Your task to perform on an android device: allow cookies in the chrome app Image 0: 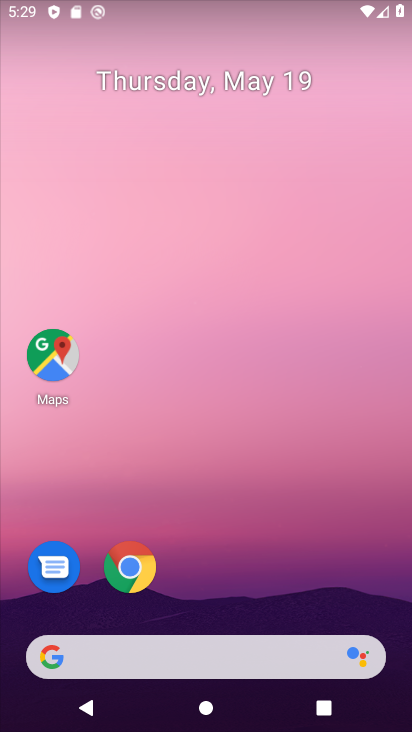
Step 0: drag from (378, 371) to (409, 597)
Your task to perform on an android device: allow cookies in the chrome app Image 1: 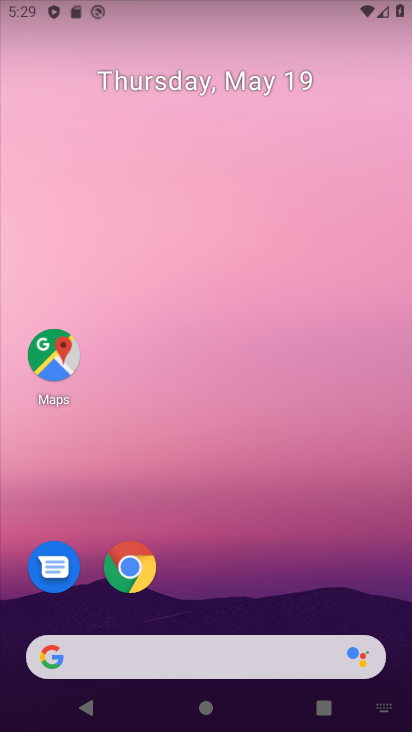
Step 1: drag from (269, 591) to (189, 143)
Your task to perform on an android device: allow cookies in the chrome app Image 2: 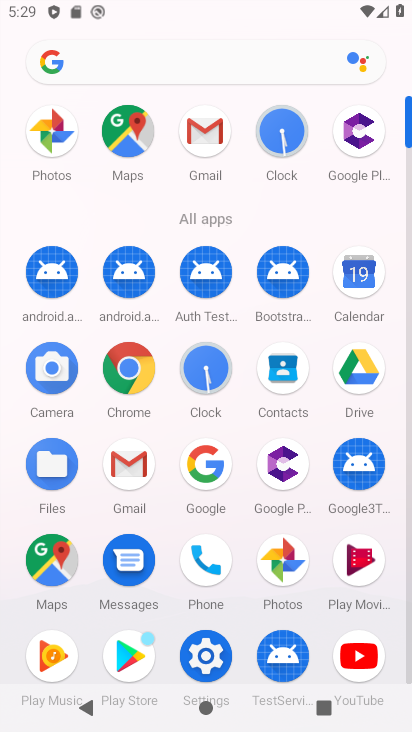
Step 2: click (123, 376)
Your task to perform on an android device: allow cookies in the chrome app Image 3: 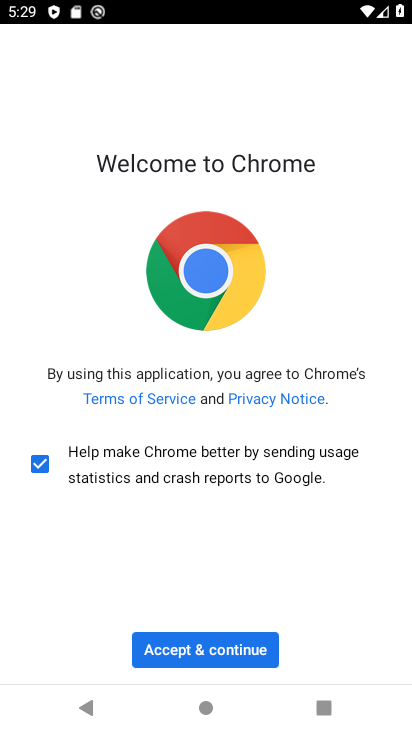
Step 3: click (184, 640)
Your task to perform on an android device: allow cookies in the chrome app Image 4: 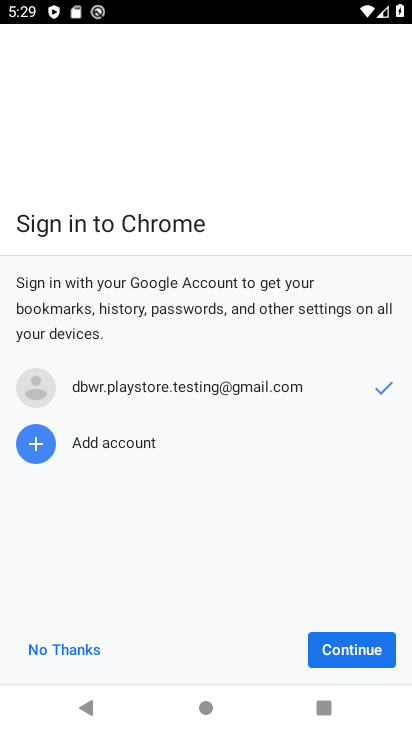
Step 4: click (356, 662)
Your task to perform on an android device: allow cookies in the chrome app Image 5: 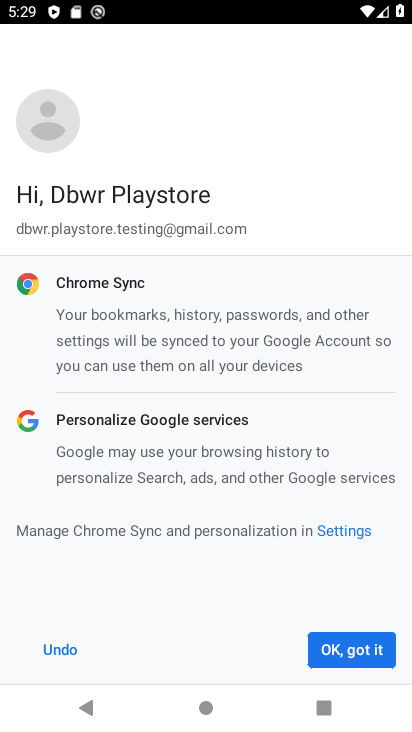
Step 5: click (351, 650)
Your task to perform on an android device: allow cookies in the chrome app Image 6: 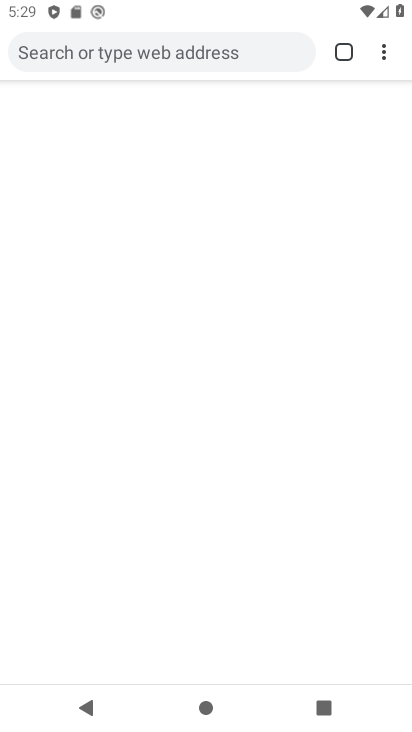
Step 6: click (351, 650)
Your task to perform on an android device: allow cookies in the chrome app Image 7: 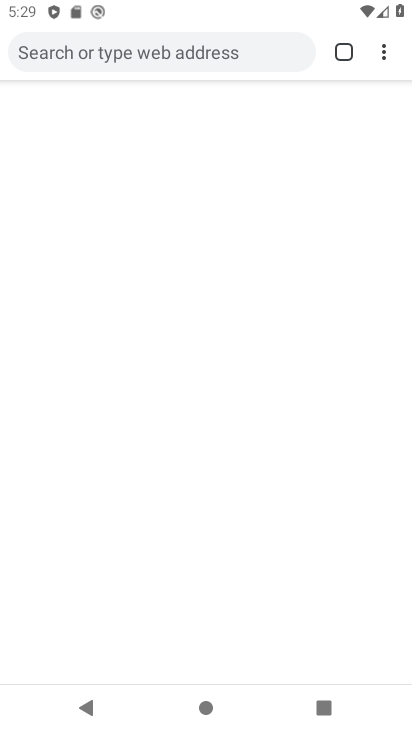
Step 7: click (351, 650)
Your task to perform on an android device: allow cookies in the chrome app Image 8: 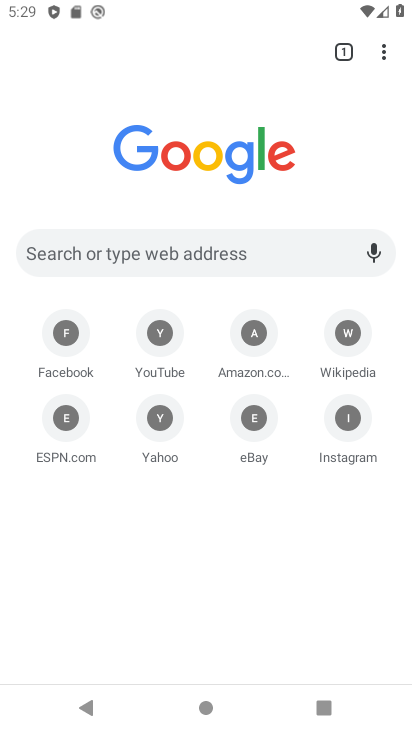
Step 8: click (351, 650)
Your task to perform on an android device: allow cookies in the chrome app Image 9: 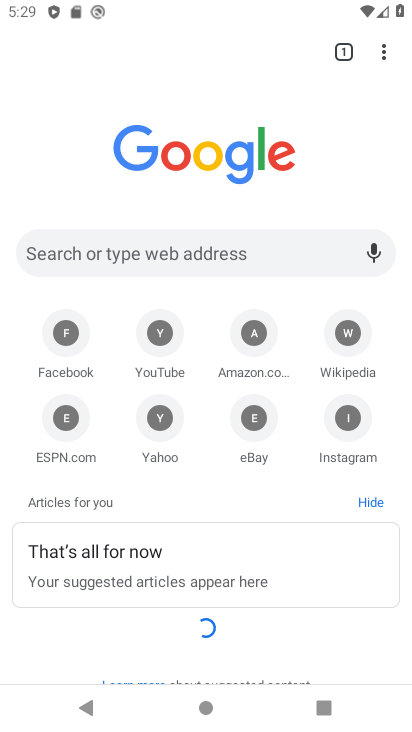
Step 9: click (351, 650)
Your task to perform on an android device: allow cookies in the chrome app Image 10: 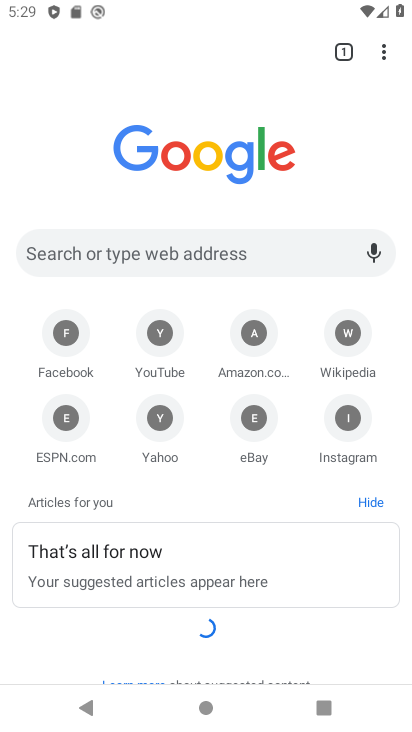
Step 10: click (351, 650)
Your task to perform on an android device: allow cookies in the chrome app Image 11: 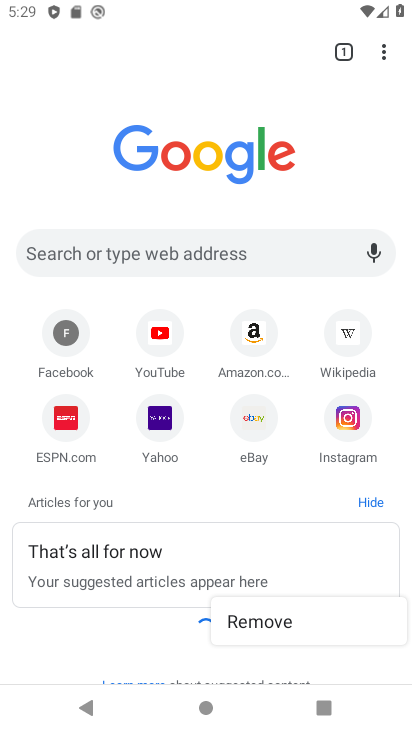
Step 11: click (351, 650)
Your task to perform on an android device: allow cookies in the chrome app Image 12: 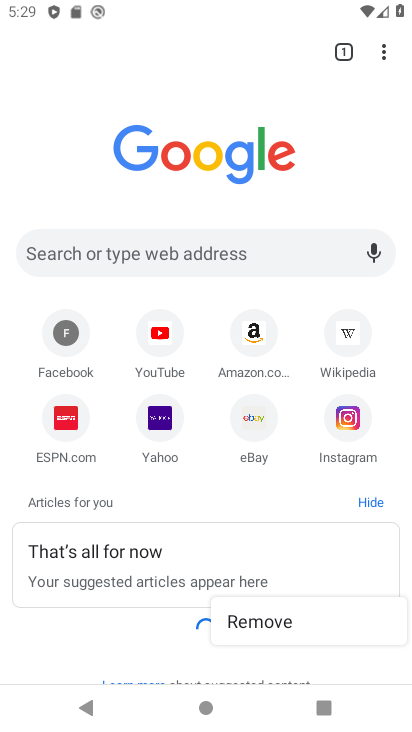
Step 12: click (336, 630)
Your task to perform on an android device: allow cookies in the chrome app Image 13: 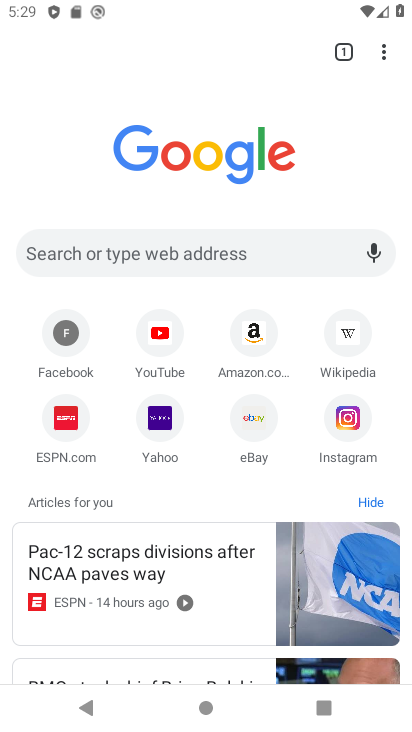
Step 13: drag from (382, 50) to (192, 431)
Your task to perform on an android device: allow cookies in the chrome app Image 14: 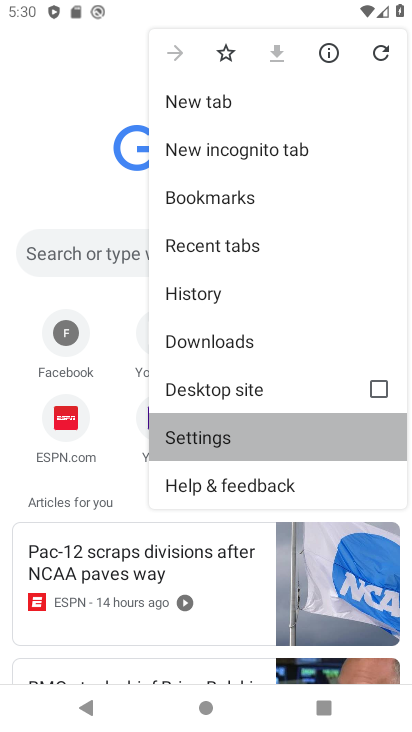
Step 14: click (196, 432)
Your task to perform on an android device: allow cookies in the chrome app Image 15: 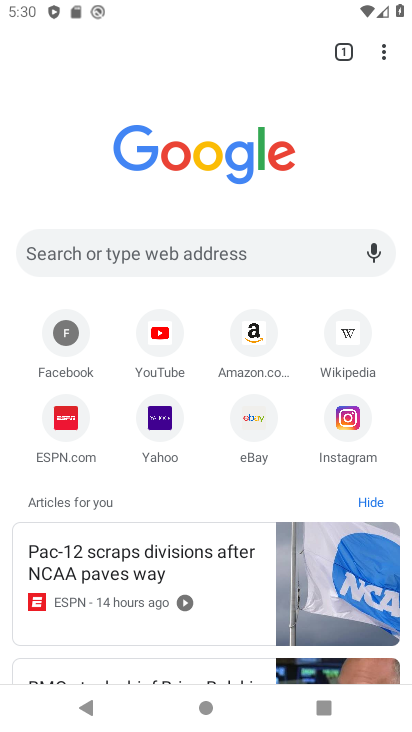
Step 15: click (197, 431)
Your task to perform on an android device: allow cookies in the chrome app Image 16: 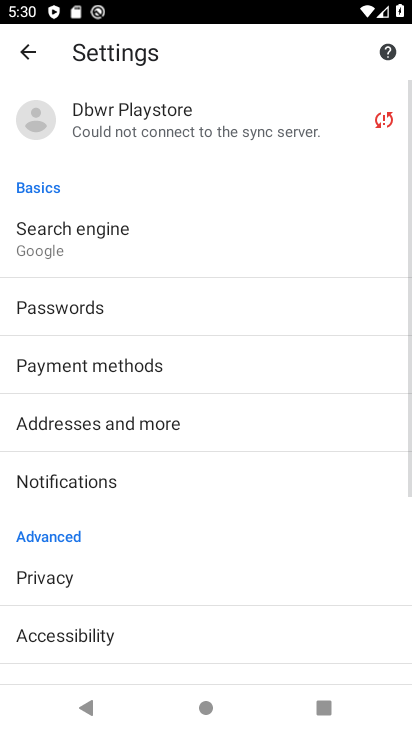
Step 16: drag from (125, 531) to (87, 262)
Your task to perform on an android device: allow cookies in the chrome app Image 17: 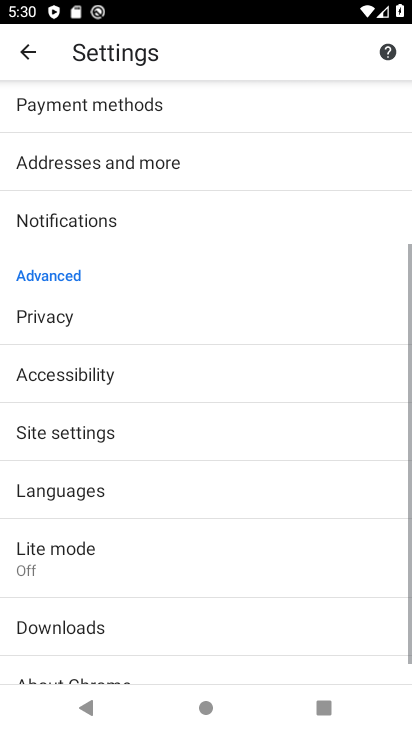
Step 17: drag from (128, 520) to (95, 221)
Your task to perform on an android device: allow cookies in the chrome app Image 18: 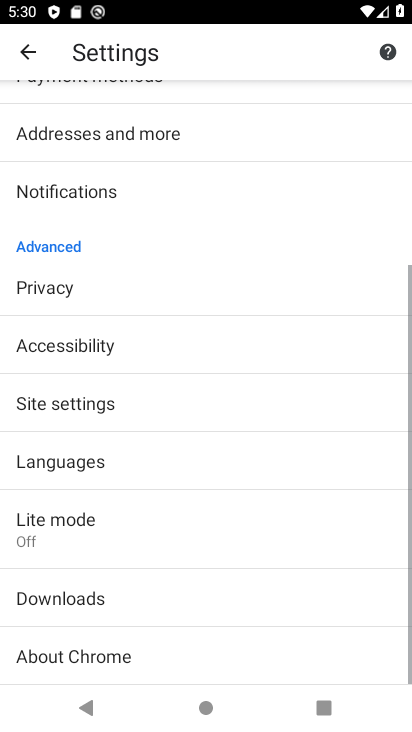
Step 18: click (77, 407)
Your task to perform on an android device: allow cookies in the chrome app Image 19: 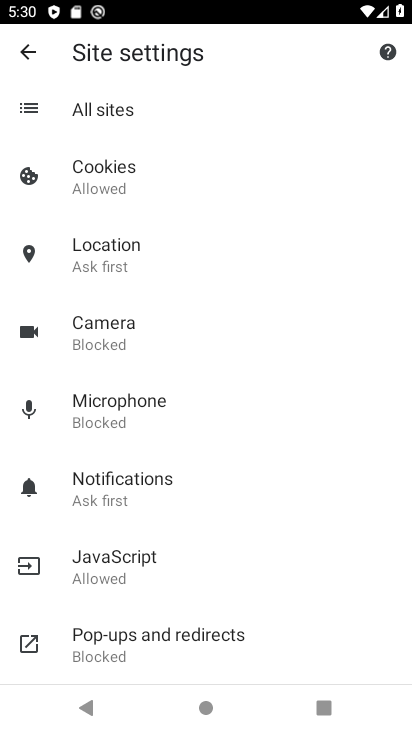
Step 19: click (111, 171)
Your task to perform on an android device: allow cookies in the chrome app Image 20: 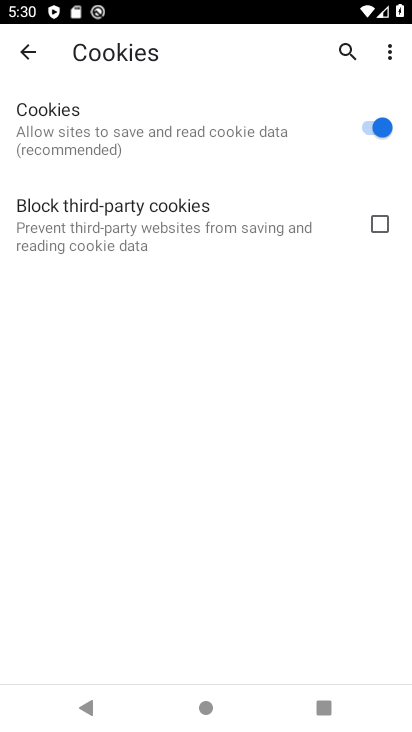
Step 20: task complete